Your task to perform on an android device: turn vacation reply on in the gmail app Image 0: 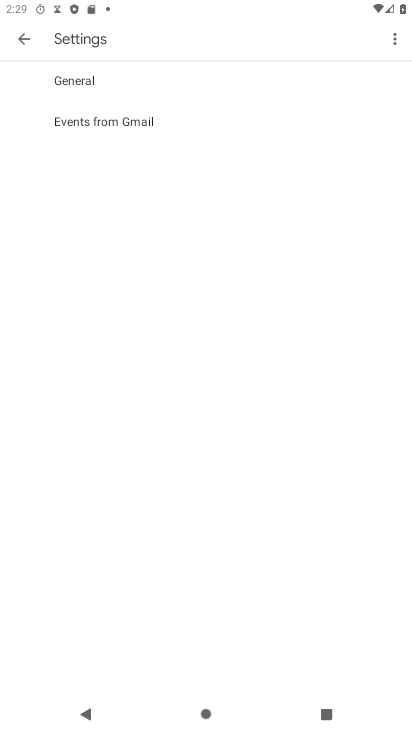
Step 0: press home button
Your task to perform on an android device: turn vacation reply on in the gmail app Image 1: 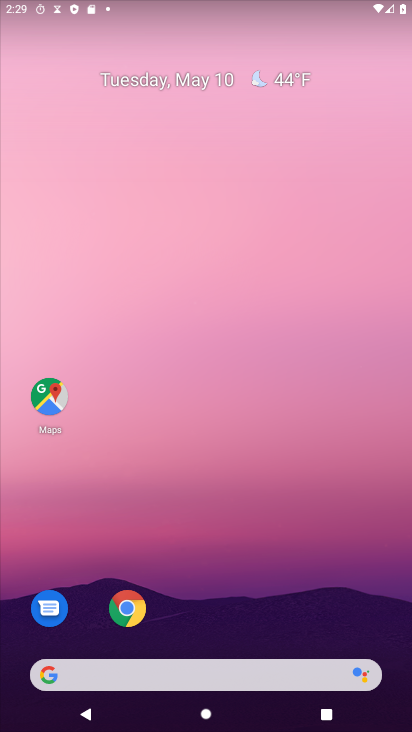
Step 1: drag from (352, 638) to (367, 80)
Your task to perform on an android device: turn vacation reply on in the gmail app Image 2: 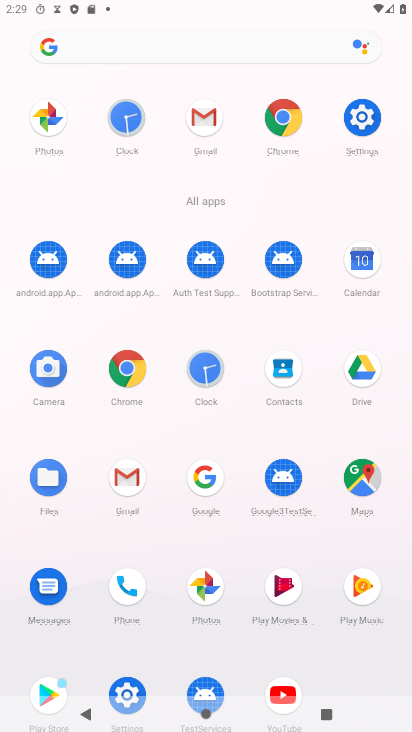
Step 2: click (199, 133)
Your task to perform on an android device: turn vacation reply on in the gmail app Image 3: 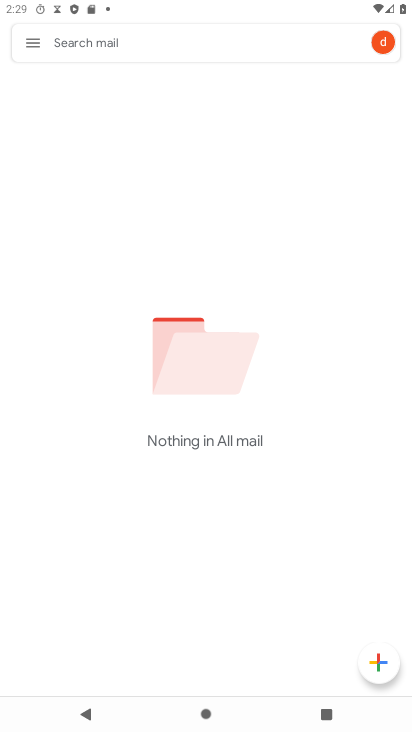
Step 3: click (33, 47)
Your task to perform on an android device: turn vacation reply on in the gmail app Image 4: 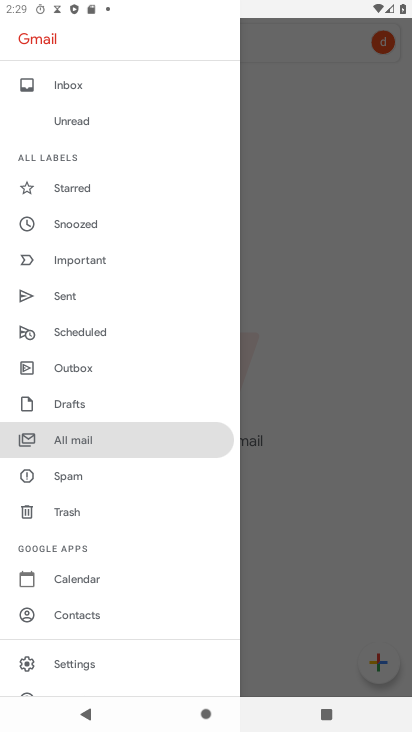
Step 4: click (79, 662)
Your task to perform on an android device: turn vacation reply on in the gmail app Image 5: 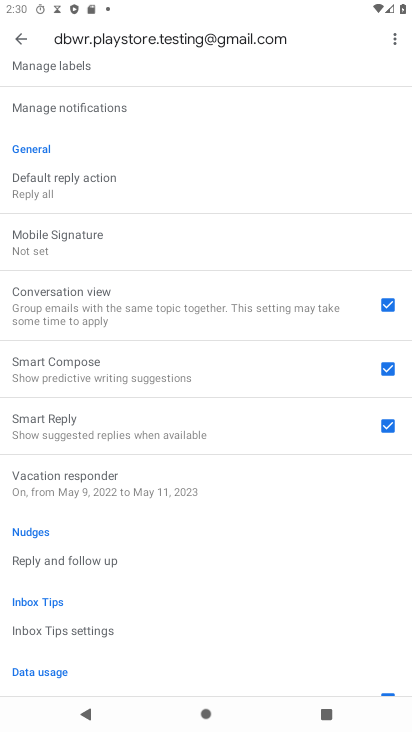
Step 5: click (75, 489)
Your task to perform on an android device: turn vacation reply on in the gmail app Image 6: 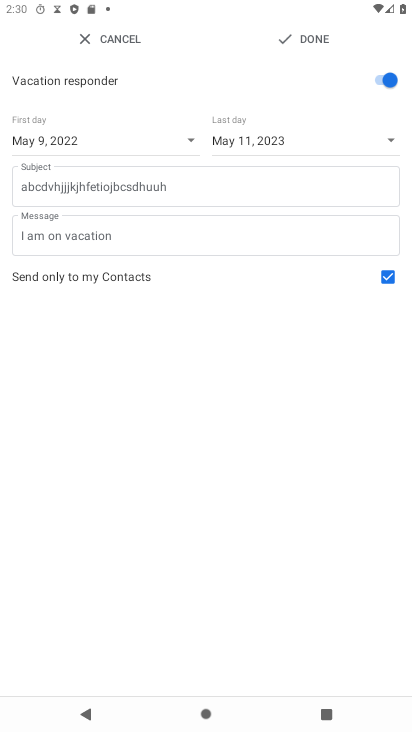
Step 6: click (298, 40)
Your task to perform on an android device: turn vacation reply on in the gmail app Image 7: 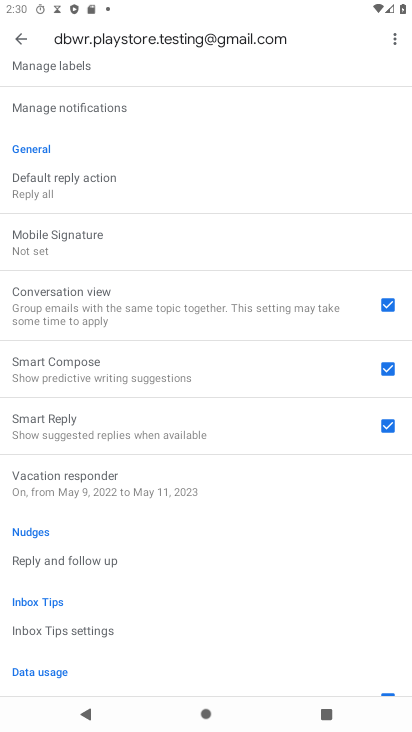
Step 7: task complete